Your task to perform on an android device: open sync settings in chrome Image 0: 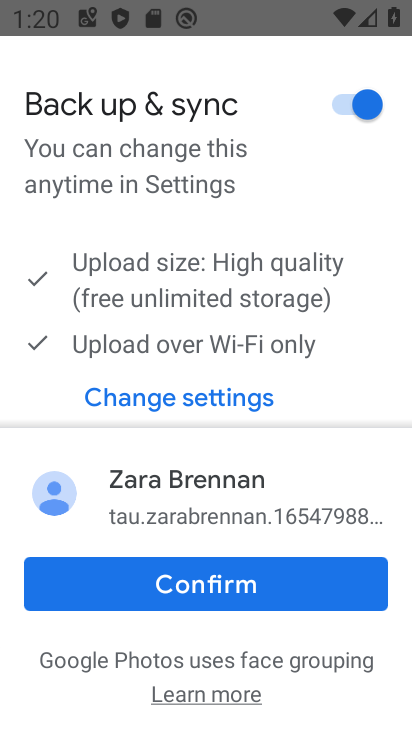
Step 0: press home button
Your task to perform on an android device: open sync settings in chrome Image 1: 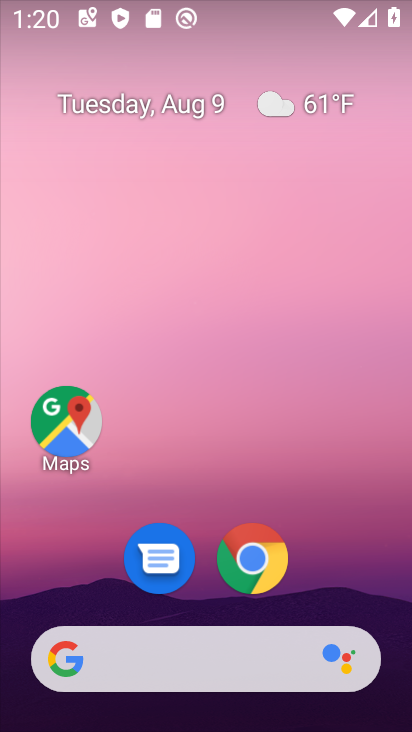
Step 1: click (273, 574)
Your task to perform on an android device: open sync settings in chrome Image 2: 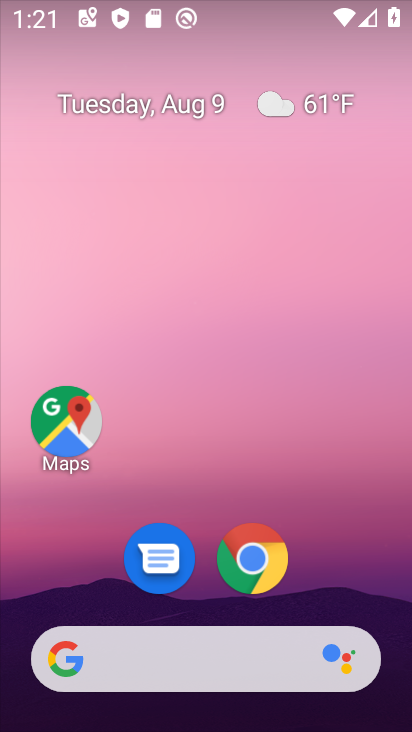
Step 2: click (261, 566)
Your task to perform on an android device: open sync settings in chrome Image 3: 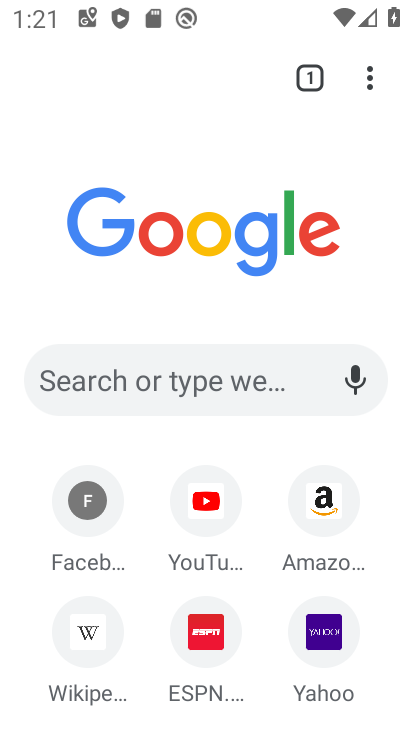
Step 3: click (369, 74)
Your task to perform on an android device: open sync settings in chrome Image 4: 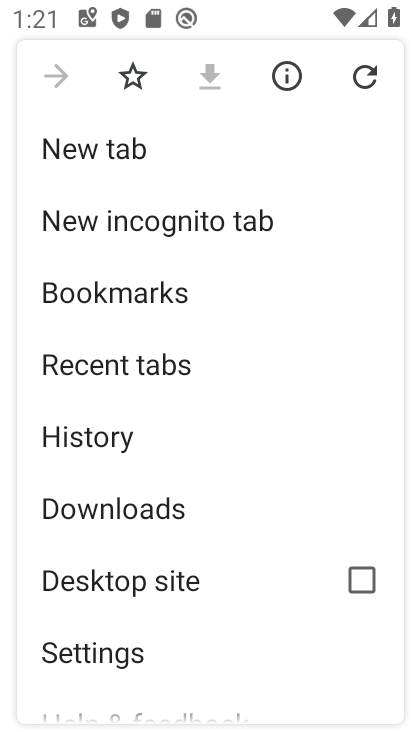
Step 4: click (139, 655)
Your task to perform on an android device: open sync settings in chrome Image 5: 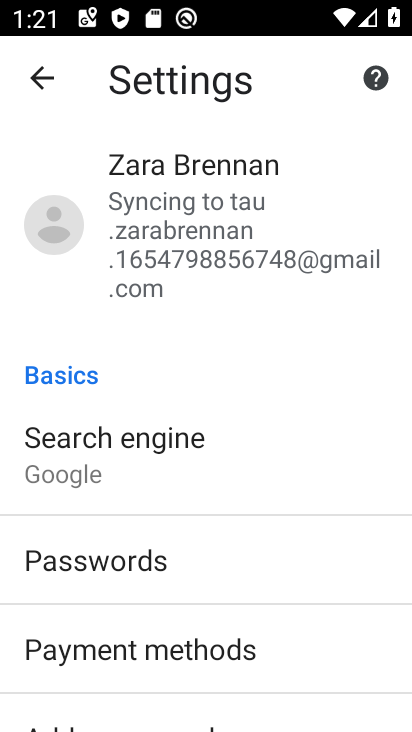
Step 5: click (206, 215)
Your task to perform on an android device: open sync settings in chrome Image 6: 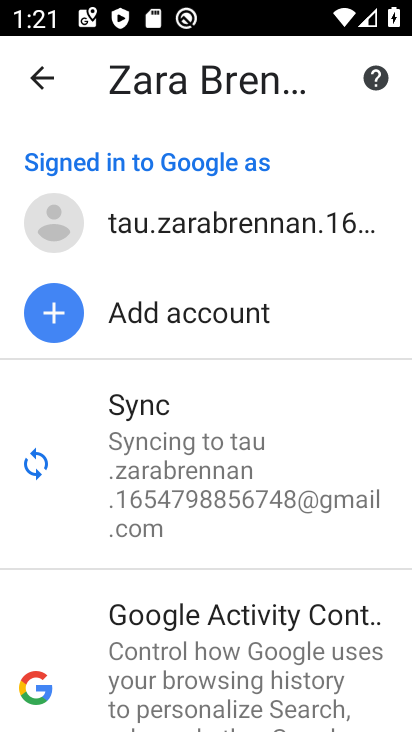
Step 6: click (234, 439)
Your task to perform on an android device: open sync settings in chrome Image 7: 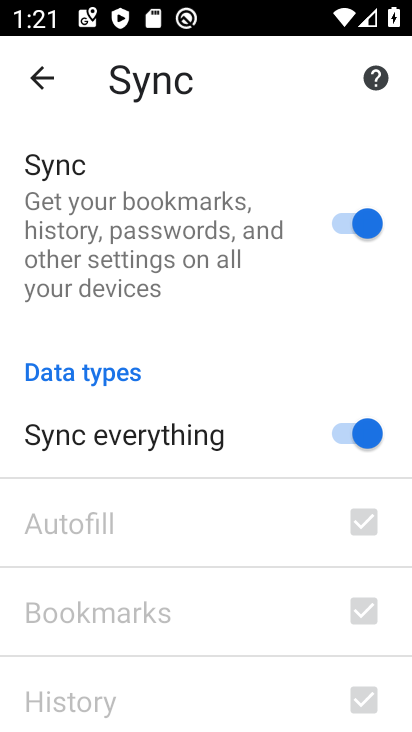
Step 7: task complete